Your task to perform on an android device: Open notification settings Image 0: 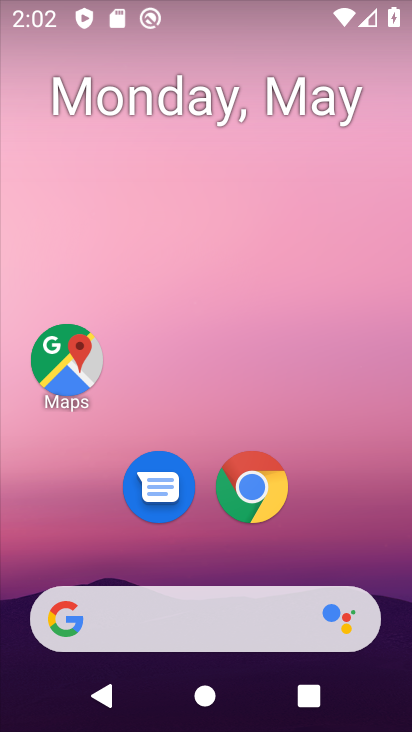
Step 0: drag from (386, 529) to (279, 91)
Your task to perform on an android device: Open notification settings Image 1: 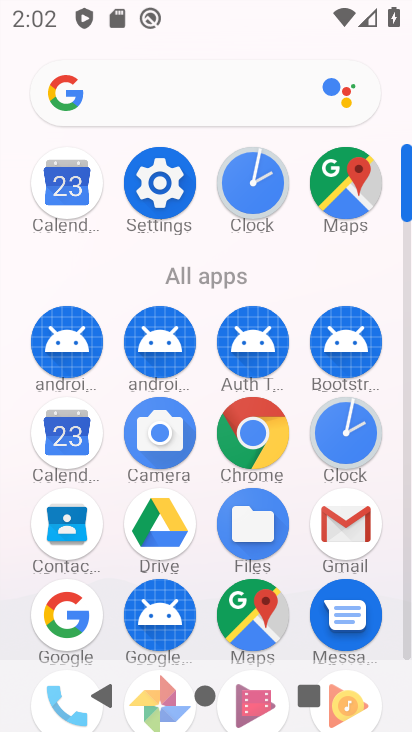
Step 1: click (151, 191)
Your task to perform on an android device: Open notification settings Image 2: 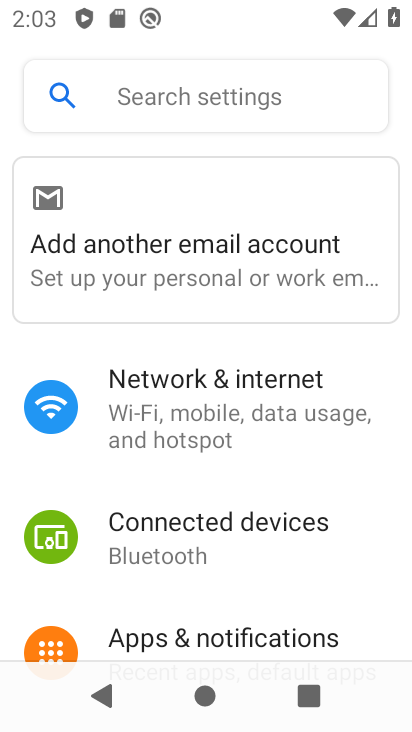
Step 2: drag from (312, 597) to (302, 218)
Your task to perform on an android device: Open notification settings Image 3: 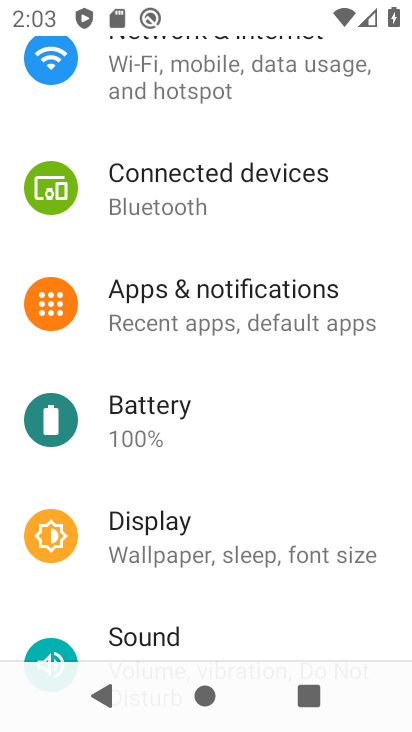
Step 3: click (303, 295)
Your task to perform on an android device: Open notification settings Image 4: 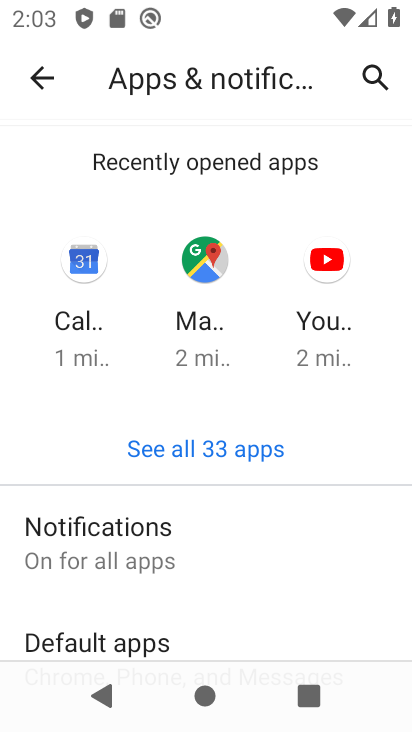
Step 4: click (169, 553)
Your task to perform on an android device: Open notification settings Image 5: 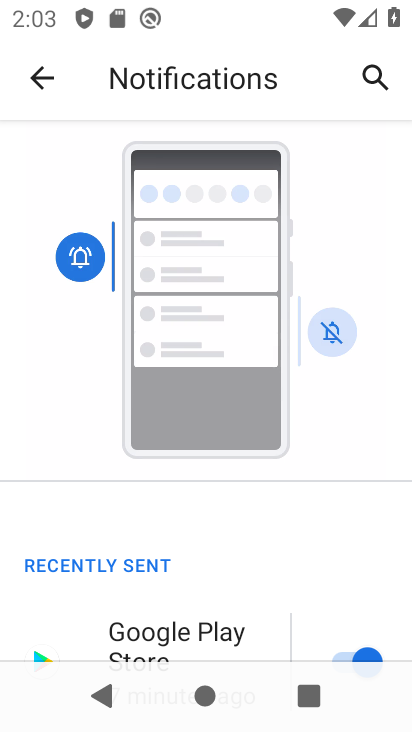
Step 5: task complete